Your task to perform on an android device: make emails show in primary in the gmail app Image 0: 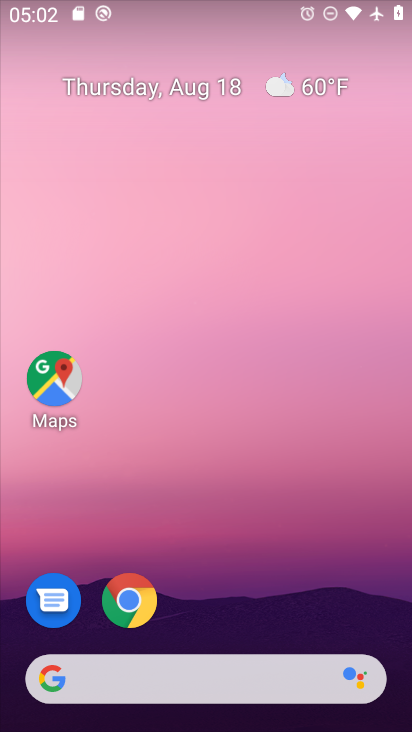
Step 0: press home button
Your task to perform on an android device: make emails show in primary in the gmail app Image 1: 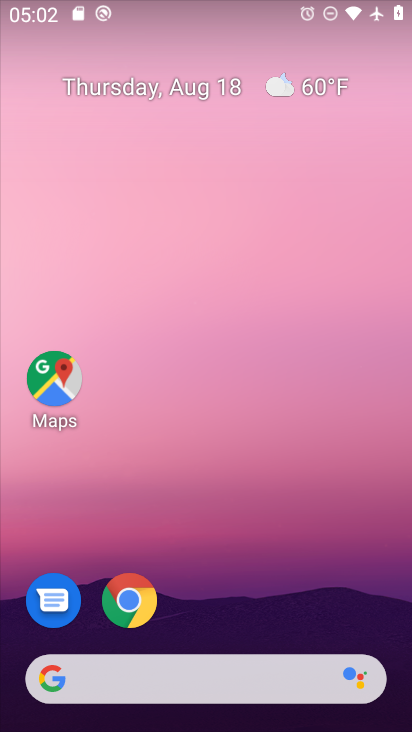
Step 1: click (295, 53)
Your task to perform on an android device: make emails show in primary in the gmail app Image 2: 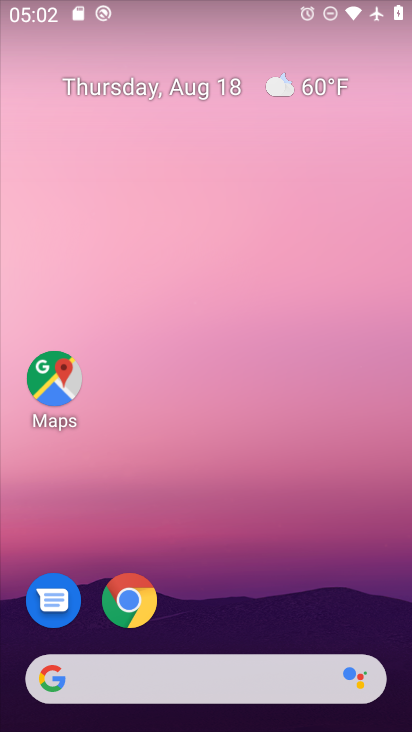
Step 2: drag from (255, 618) to (288, 0)
Your task to perform on an android device: make emails show in primary in the gmail app Image 3: 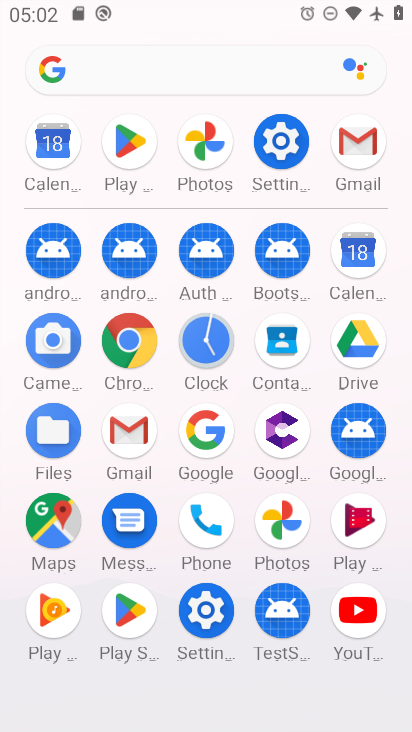
Step 3: click (355, 138)
Your task to perform on an android device: make emails show in primary in the gmail app Image 4: 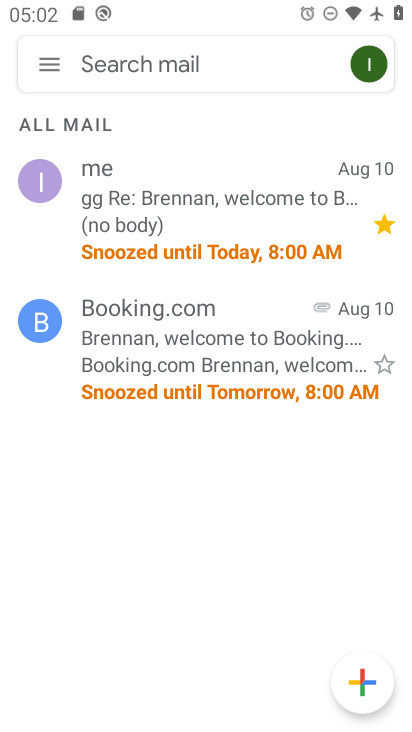
Step 4: click (53, 57)
Your task to perform on an android device: make emails show in primary in the gmail app Image 5: 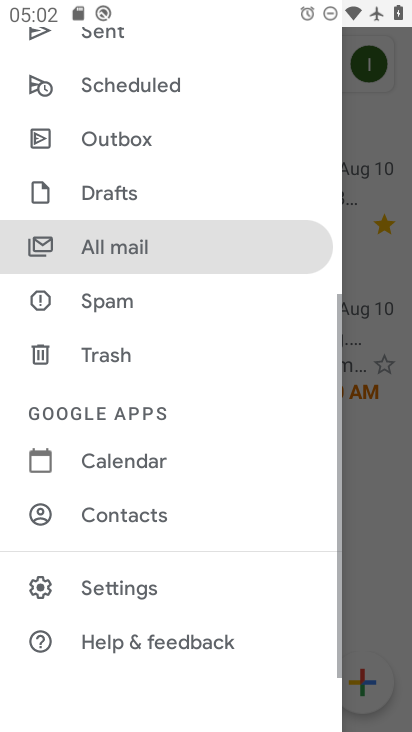
Step 5: click (107, 589)
Your task to perform on an android device: make emails show in primary in the gmail app Image 6: 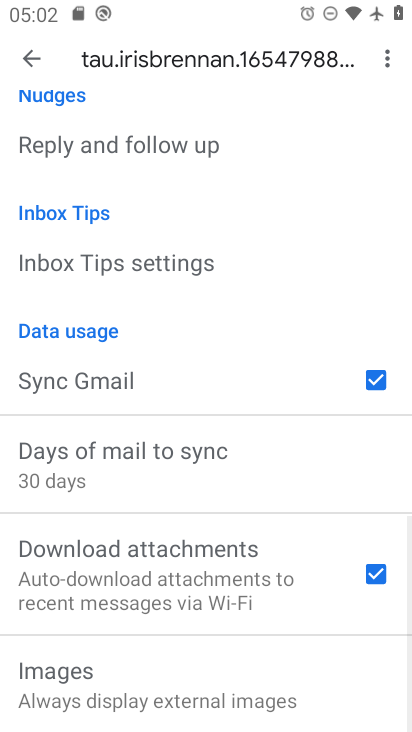
Step 6: task complete